Your task to perform on an android device: visit the assistant section in the google photos Image 0: 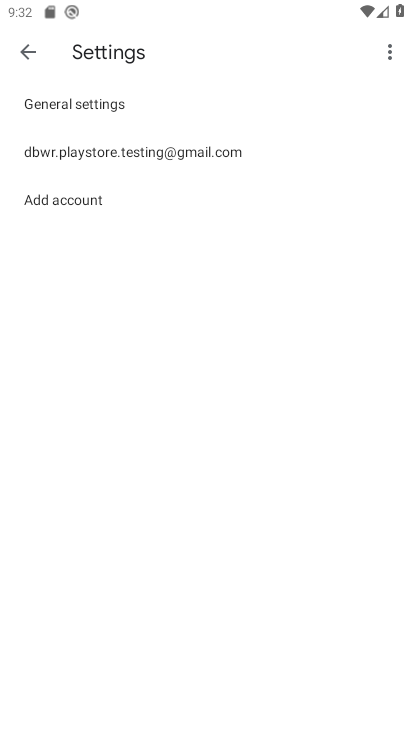
Step 0: press home button
Your task to perform on an android device: visit the assistant section in the google photos Image 1: 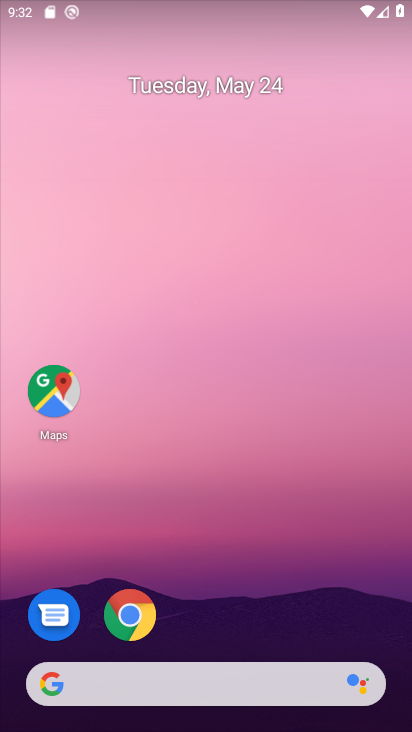
Step 1: drag from (386, 621) to (356, 194)
Your task to perform on an android device: visit the assistant section in the google photos Image 2: 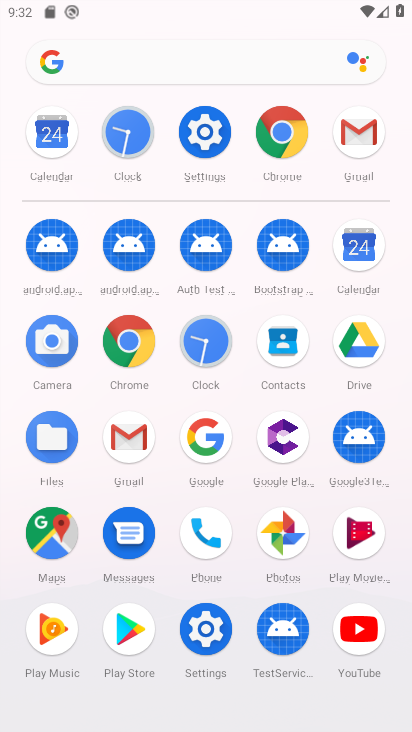
Step 2: click (286, 539)
Your task to perform on an android device: visit the assistant section in the google photos Image 3: 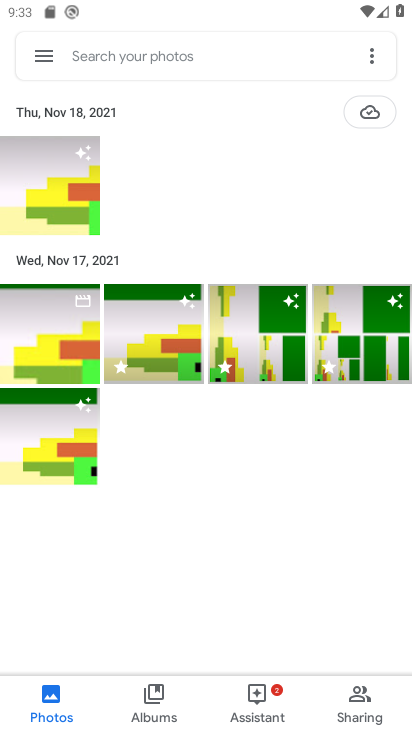
Step 3: click (259, 704)
Your task to perform on an android device: visit the assistant section in the google photos Image 4: 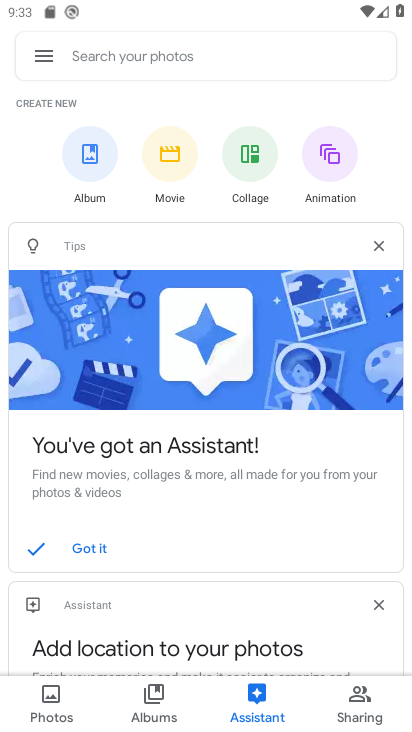
Step 4: task complete